Your task to perform on an android device: turn vacation reply on in the gmail app Image 0: 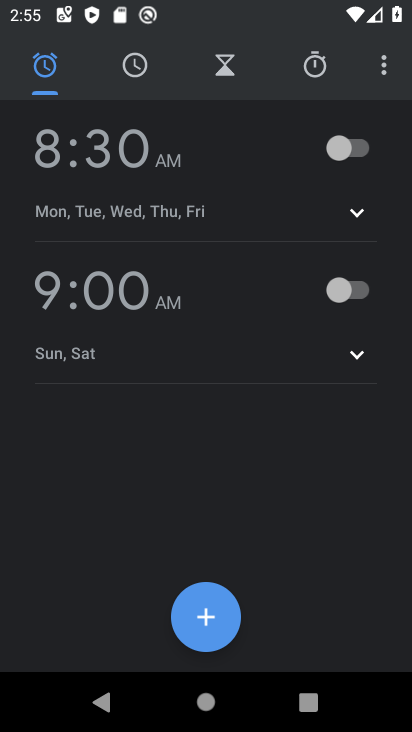
Step 0: press back button
Your task to perform on an android device: turn vacation reply on in the gmail app Image 1: 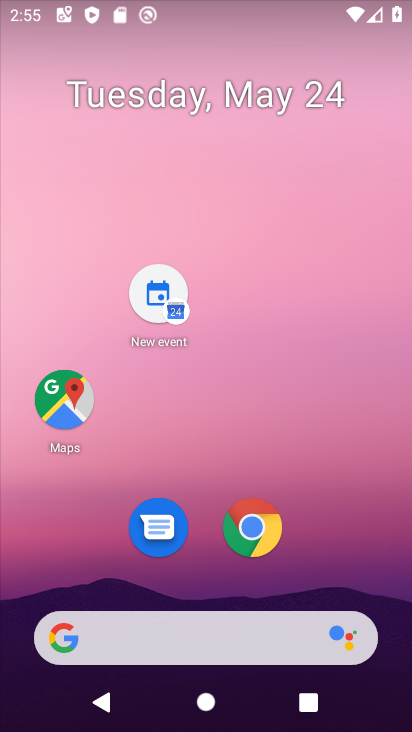
Step 1: drag from (353, 617) to (223, 95)
Your task to perform on an android device: turn vacation reply on in the gmail app Image 2: 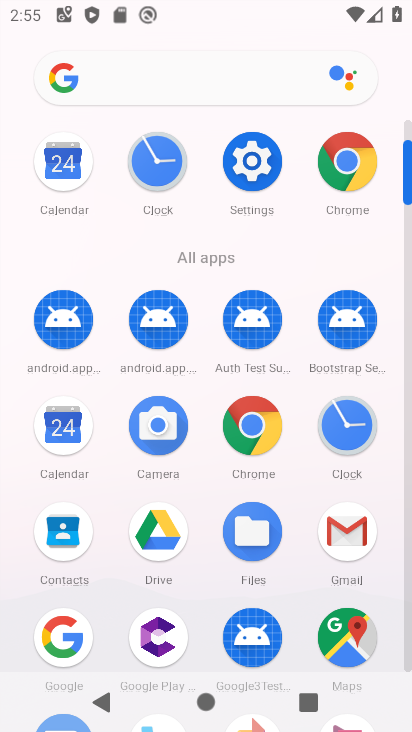
Step 2: click (343, 518)
Your task to perform on an android device: turn vacation reply on in the gmail app Image 3: 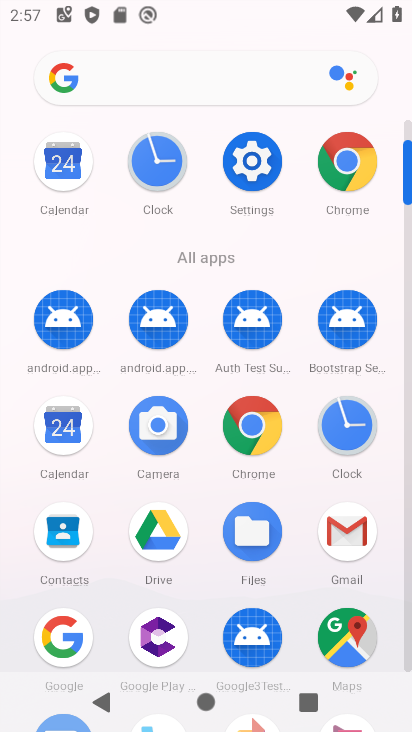
Step 3: click (344, 542)
Your task to perform on an android device: turn vacation reply on in the gmail app Image 4: 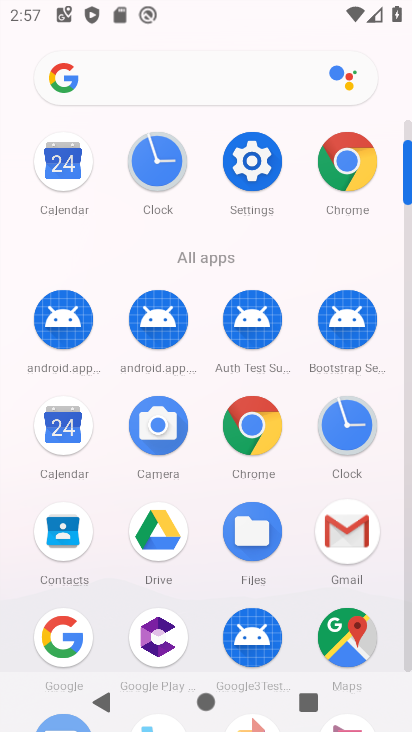
Step 4: click (344, 542)
Your task to perform on an android device: turn vacation reply on in the gmail app Image 5: 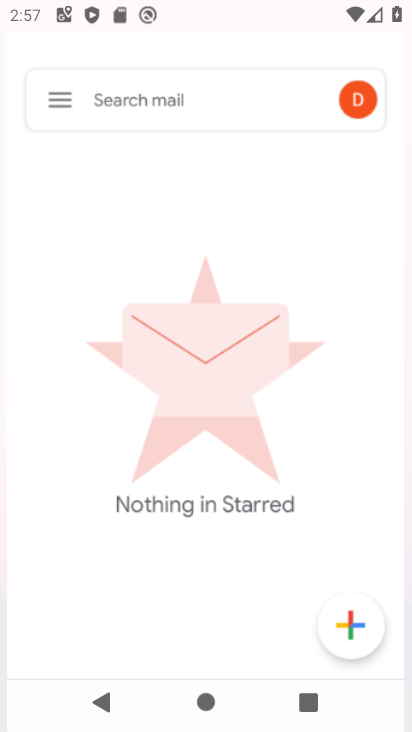
Step 5: click (344, 542)
Your task to perform on an android device: turn vacation reply on in the gmail app Image 6: 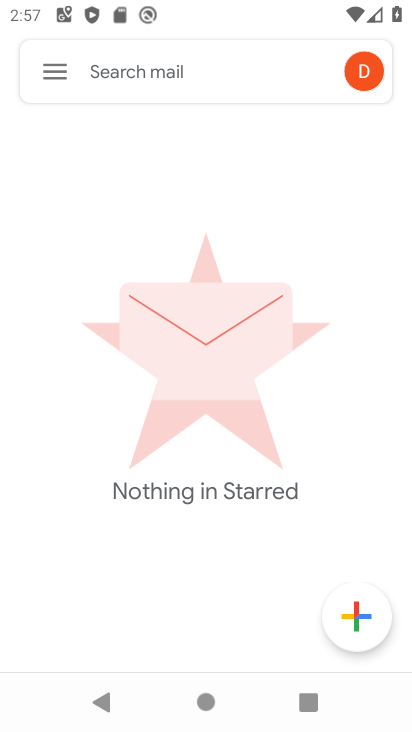
Step 6: drag from (319, 588) to (209, 266)
Your task to perform on an android device: turn vacation reply on in the gmail app Image 7: 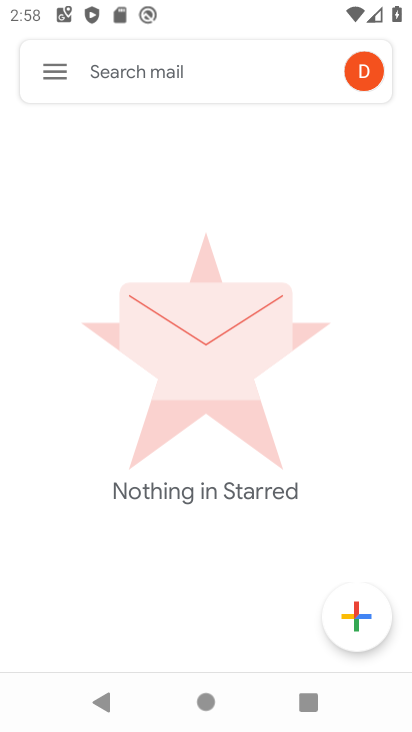
Step 7: click (58, 77)
Your task to perform on an android device: turn vacation reply on in the gmail app Image 8: 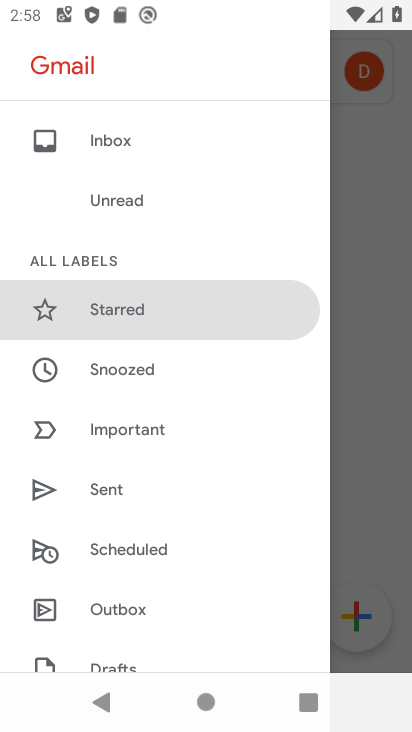
Step 8: drag from (165, 370) to (165, 197)
Your task to perform on an android device: turn vacation reply on in the gmail app Image 9: 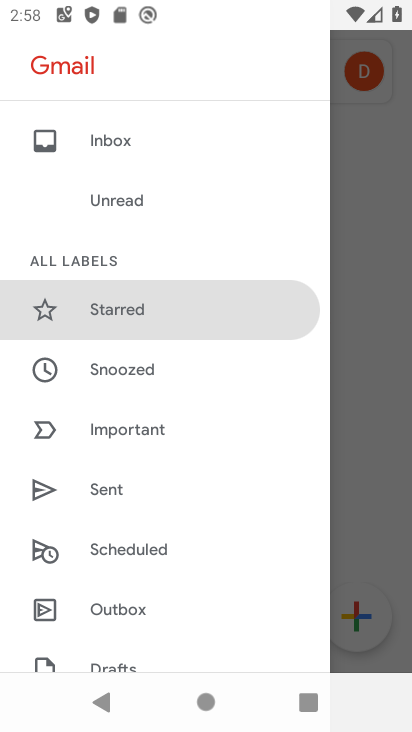
Step 9: drag from (187, 458) to (112, 211)
Your task to perform on an android device: turn vacation reply on in the gmail app Image 10: 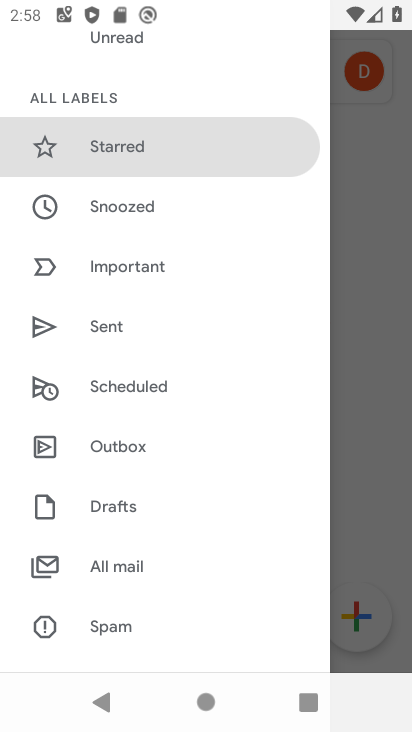
Step 10: drag from (176, 551) to (171, 449)
Your task to perform on an android device: turn vacation reply on in the gmail app Image 11: 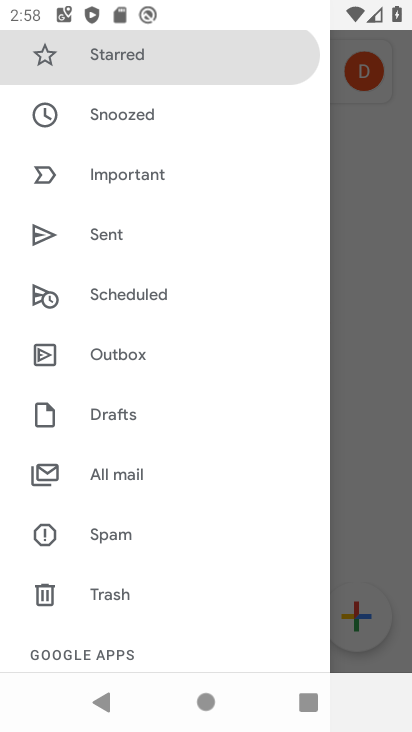
Step 11: drag from (197, 530) to (204, 312)
Your task to perform on an android device: turn vacation reply on in the gmail app Image 12: 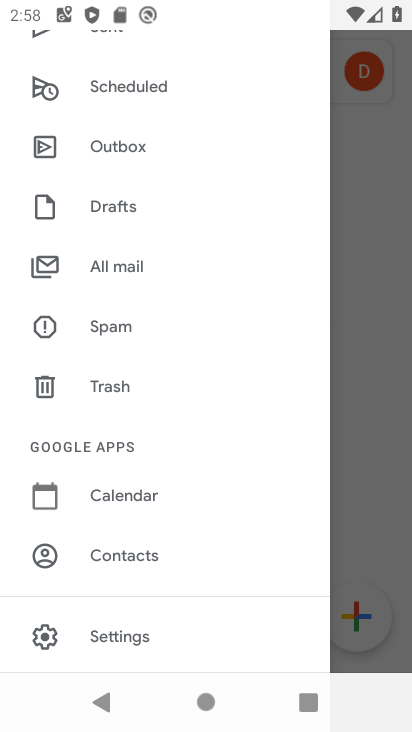
Step 12: click (109, 615)
Your task to perform on an android device: turn vacation reply on in the gmail app Image 13: 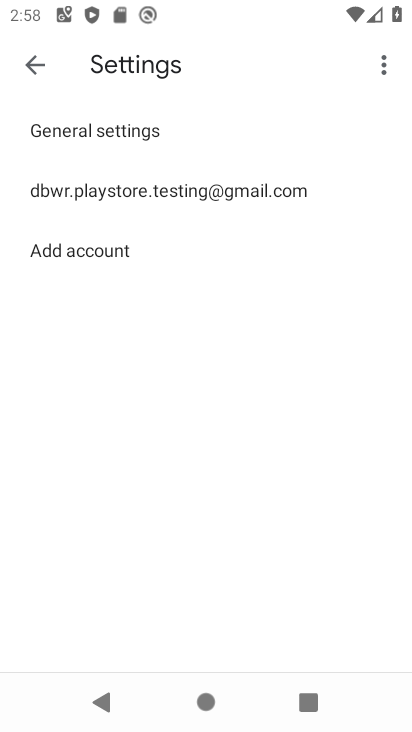
Step 13: click (147, 195)
Your task to perform on an android device: turn vacation reply on in the gmail app Image 14: 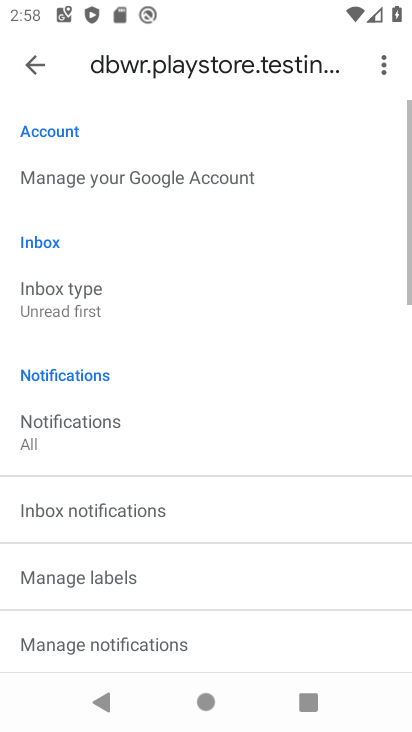
Step 14: drag from (142, 425) to (145, 224)
Your task to perform on an android device: turn vacation reply on in the gmail app Image 15: 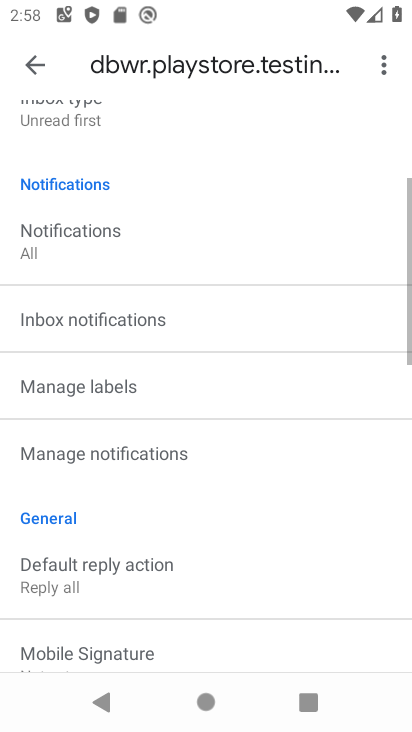
Step 15: drag from (216, 478) to (216, 198)
Your task to perform on an android device: turn vacation reply on in the gmail app Image 16: 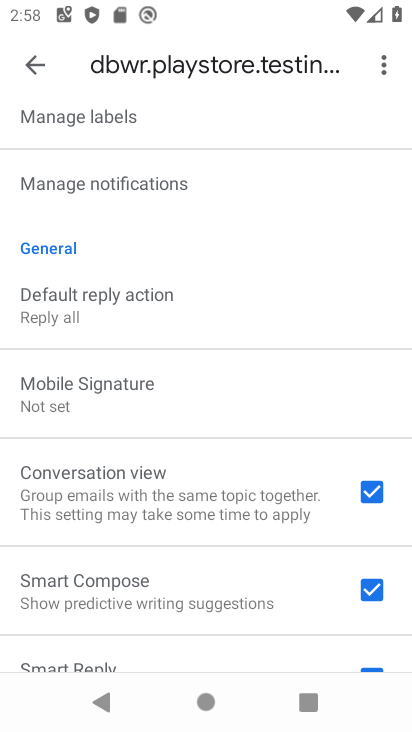
Step 16: drag from (176, 475) to (176, 151)
Your task to perform on an android device: turn vacation reply on in the gmail app Image 17: 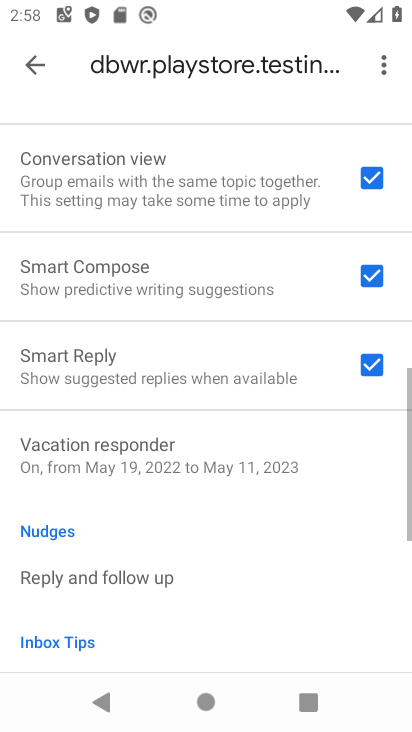
Step 17: drag from (207, 409) to (191, 238)
Your task to perform on an android device: turn vacation reply on in the gmail app Image 18: 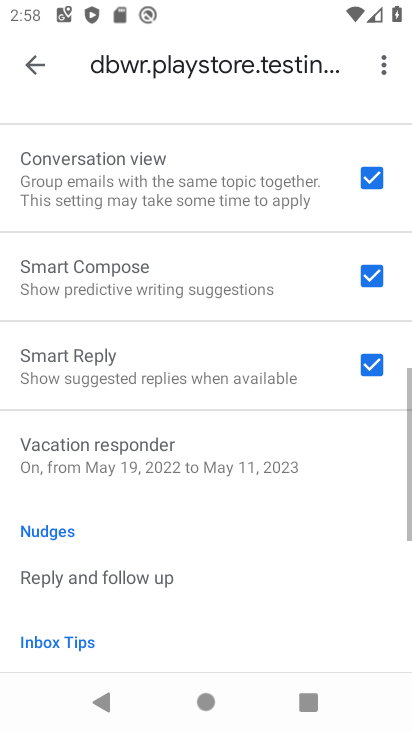
Step 18: drag from (250, 510) to (254, 216)
Your task to perform on an android device: turn vacation reply on in the gmail app Image 19: 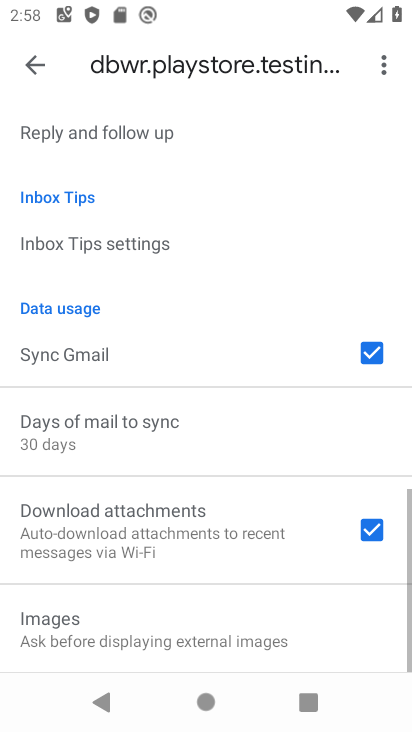
Step 19: drag from (366, 548) to (367, 220)
Your task to perform on an android device: turn vacation reply on in the gmail app Image 20: 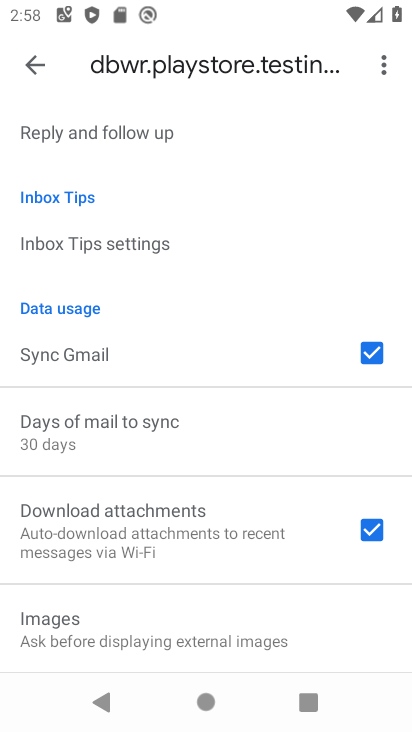
Step 20: drag from (190, 337) to (189, 492)
Your task to perform on an android device: turn vacation reply on in the gmail app Image 21: 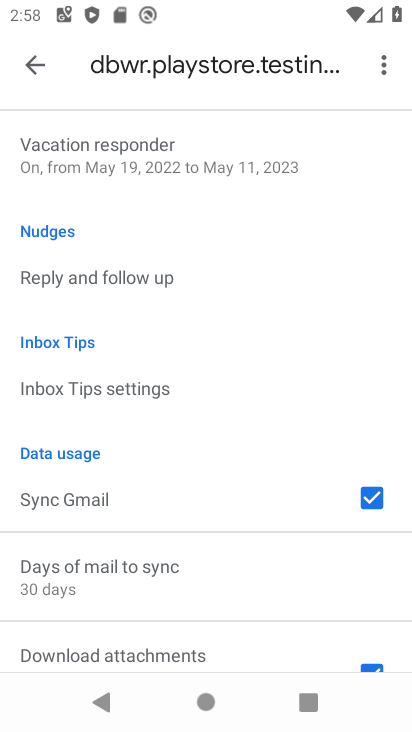
Step 21: drag from (279, 536) to (279, 256)
Your task to perform on an android device: turn vacation reply on in the gmail app Image 22: 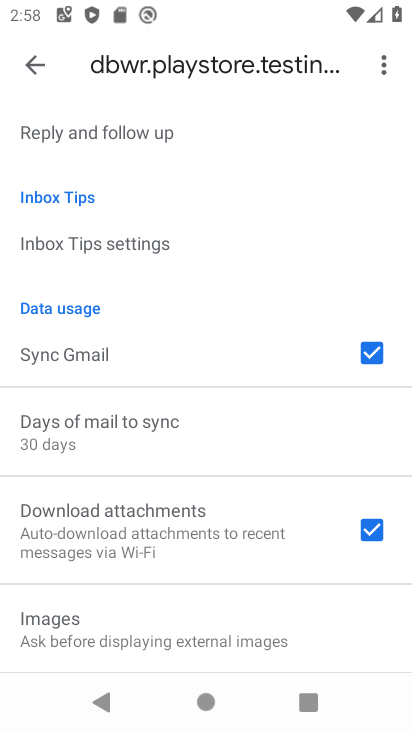
Step 22: drag from (167, 268) to (178, 659)
Your task to perform on an android device: turn vacation reply on in the gmail app Image 23: 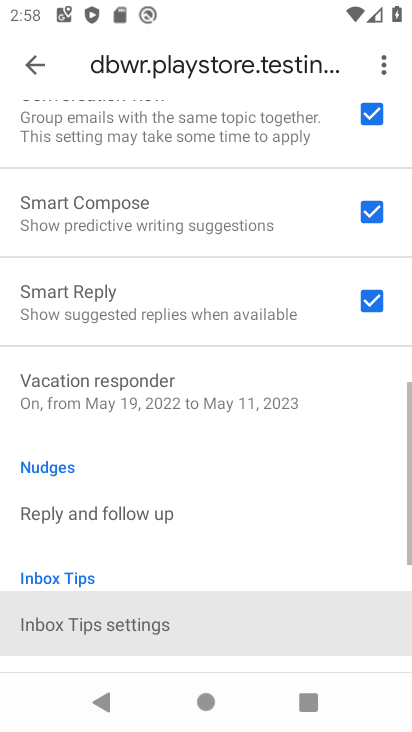
Step 23: drag from (185, 366) to (163, 592)
Your task to perform on an android device: turn vacation reply on in the gmail app Image 24: 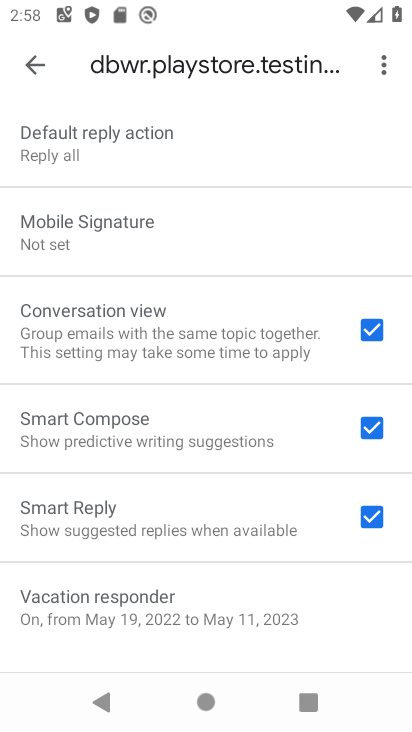
Step 24: click (159, 598)
Your task to perform on an android device: turn vacation reply on in the gmail app Image 25: 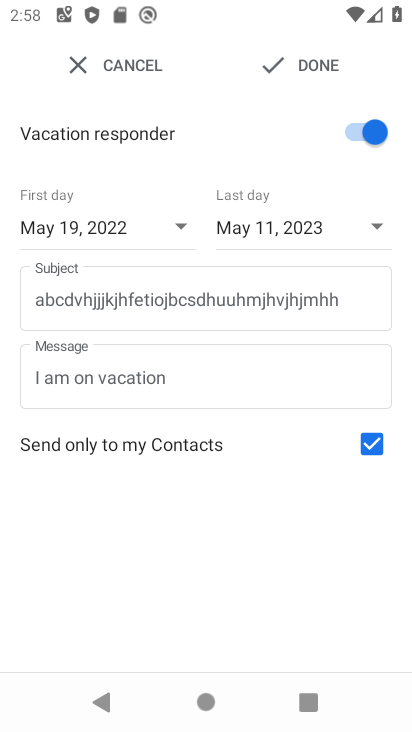
Step 25: task complete